Your task to perform on an android device: open app "Gmail" (install if not already installed) and enter user name: "undecidable@inbox.com" and password: "discouraging" Image 0: 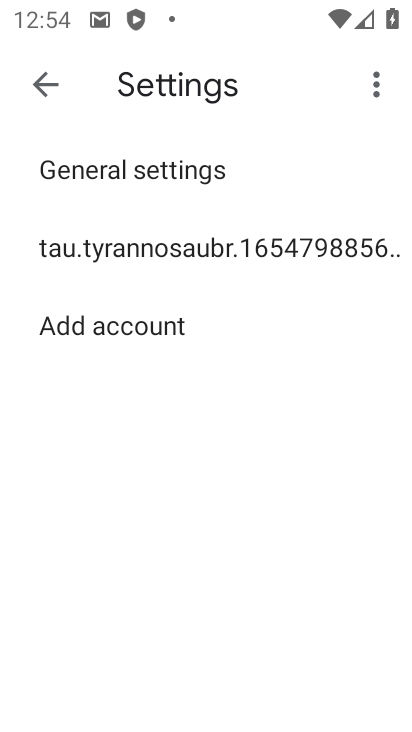
Step 0: press home button
Your task to perform on an android device: open app "Gmail" (install if not already installed) and enter user name: "undecidable@inbox.com" and password: "discouraging" Image 1: 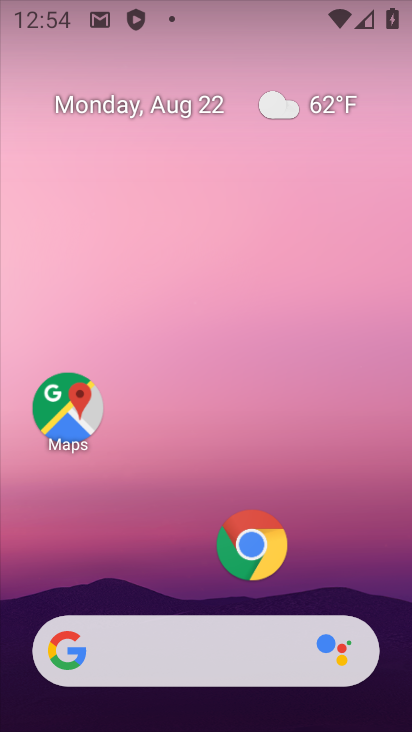
Step 1: drag from (111, 485) to (158, 10)
Your task to perform on an android device: open app "Gmail" (install if not already installed) and enter user name: "undecidable@inbox.com" and password: "discouraging" Image 2: 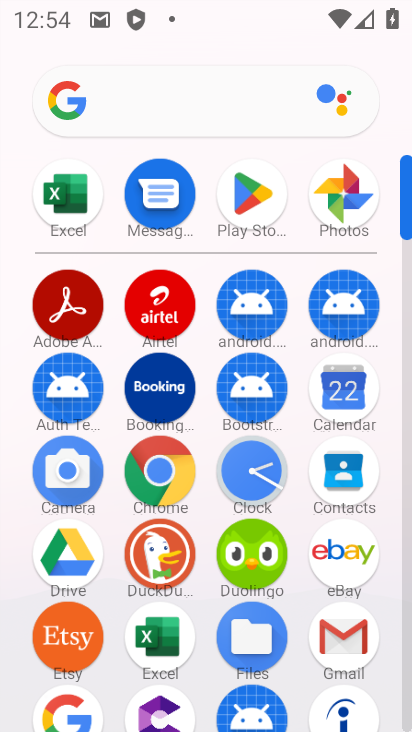
Step 2: click (338, 648)
Your task to perform on an android device: open app "Gmail" (install if not already installed) and enter user name: "undecidable@inbox.com" and password: "discouraging" Image 3: 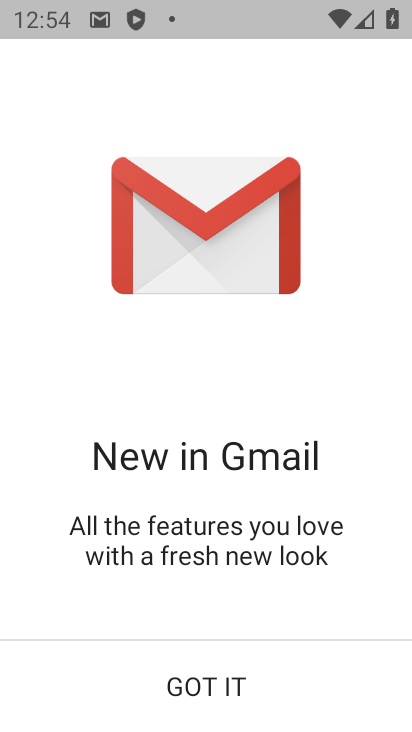
Step 3: click (207, 689)
Your task to perform on an android device: open app "Gmail" (install if not already installed) and enter user name: "undecidable@inbox.com" and password: "discouraging" Image 4: 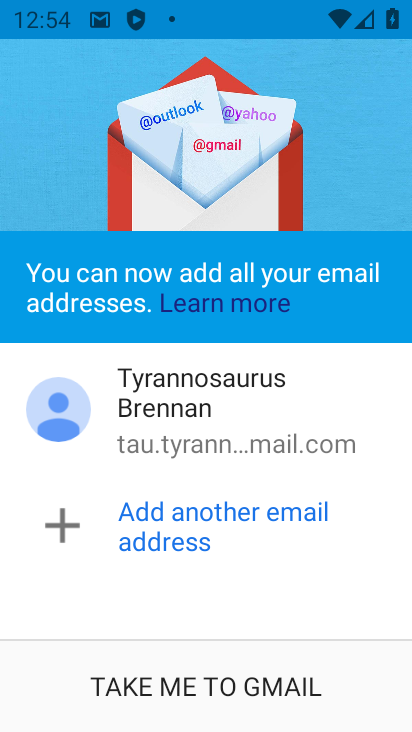
Step 4: click (181, 528)
Your task to perform on an android device: open app "Gmail" (install if not already installed) and enter user name: "undecidable@inbox.com" and password: "discouraging" Image 5: 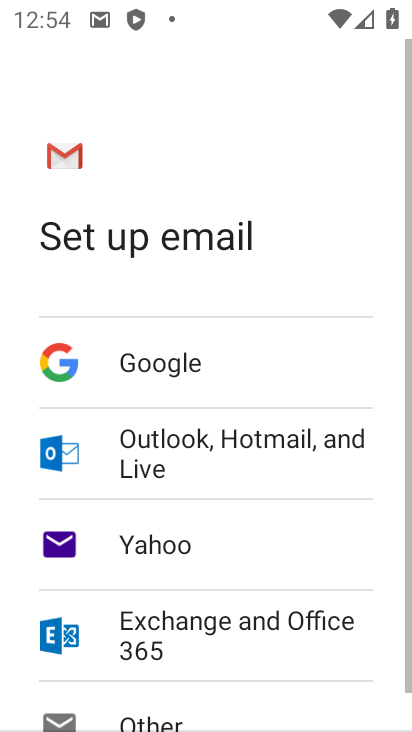
Step 5: click (160, 348)
Your task to perform on an android device: open app "Gmail" (install if not already installed) and enter user name: "undecidable@inbox.com" and password: "discouraging" Image 6: 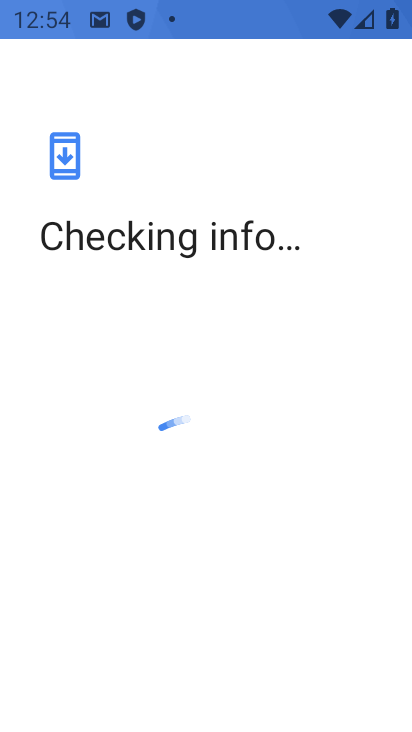
Step 6: press back button
Your task to perform on an android device: open app "Gmail" (install if not already installed) and enter user name: "undecidable@inbox.com" and password: "discouraging" Image 7: 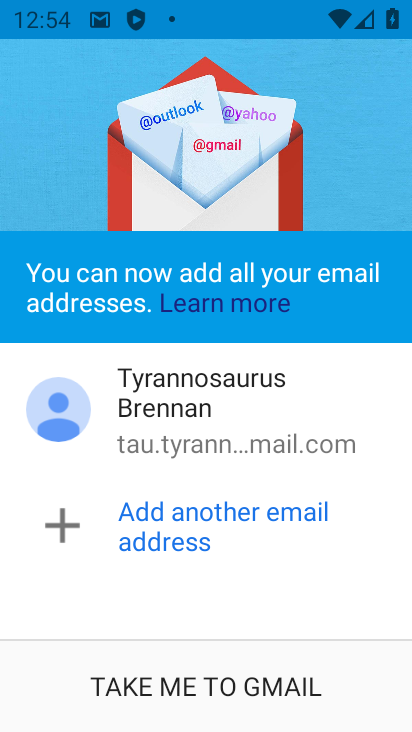
Step 7: click (164, 511)
Your task to perform on an android device: open app "Gmail" (install if not already installed) and enter user name: "undecidable@inbox.com" and password: "discouraging" Image 8: 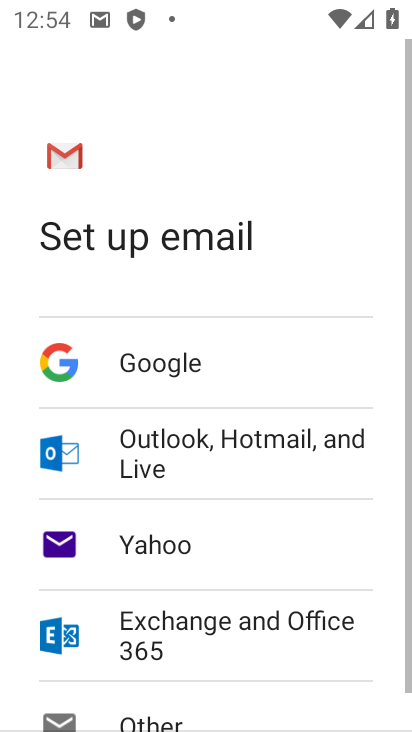
Step 8: drag from (189, 684) to (290, 76)
Your task to perform on an android device: open app "Gmail" (install if not already installed) and enter user name: "undecidable@inbox.com" and password: "discouraging" Image 9: 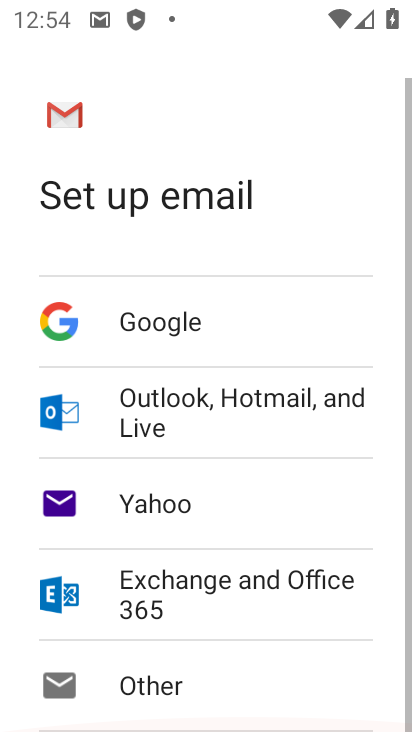
Step 9: click (129, 706)
Your task to perform on an android device: open app "Gmail" (install if not already installed) and enter user name: "undecidable@inbox.com" and password: "discouraging" Image 10: 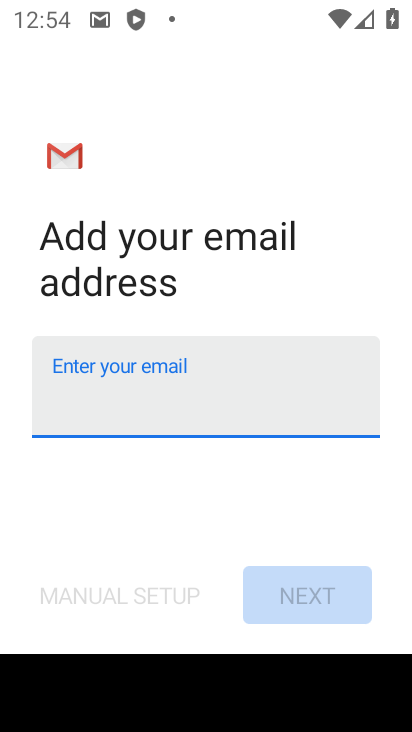
Step 10: click (179, 408)
Your task to perform on an android device: open app "Gmail" (install if not already installed) and enter user name: "undecidable@inbox.com" and password: "discouraging" Image 11: 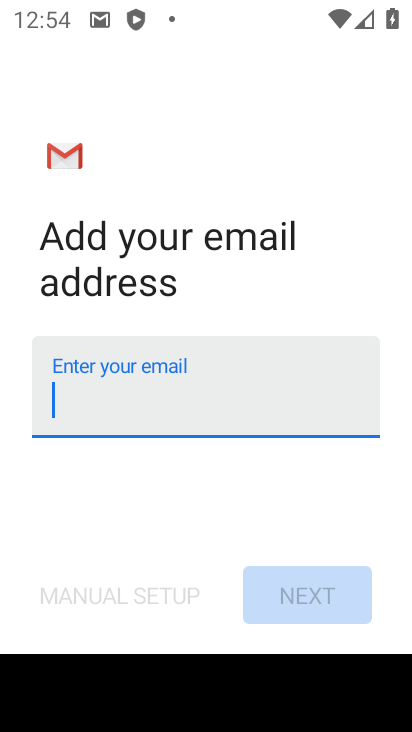
Step 11: click (91, 410)
Your task to perform on an android device: open app "Gmail" (install if not already installed) and enter user name: "undecidable@inbox.com" and password: "discouraging" Image 12: 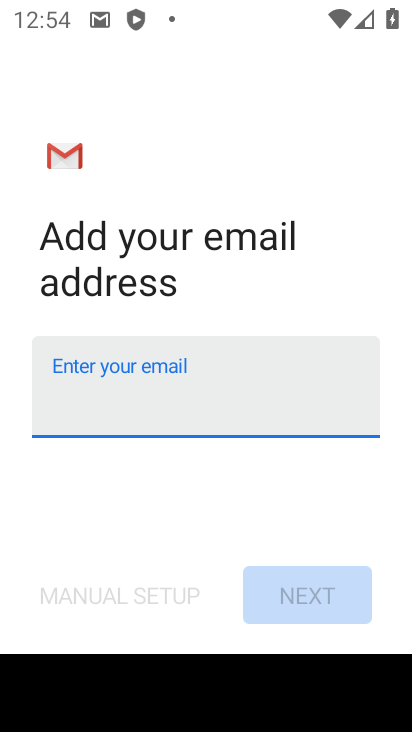
Step 12: type "undecidable@inbox.com"
Your task to perform on an android device: open app "Gmail" (install if not already installed) and enter user name: "undecidable@inbox.com" and password: "discouraging" Image 13: 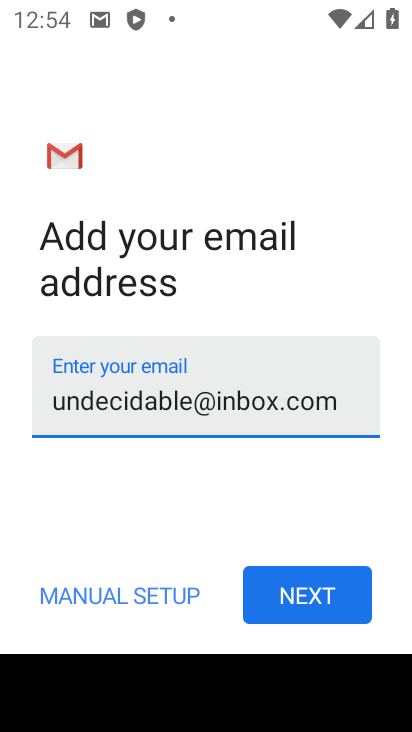
Step 13: click (308, 589)
Your task to perform on an android device: open app "Gmail" (install if not already installed) and enter user name: "undecidable@inbox.com" and password: "discouraging" Image 14: 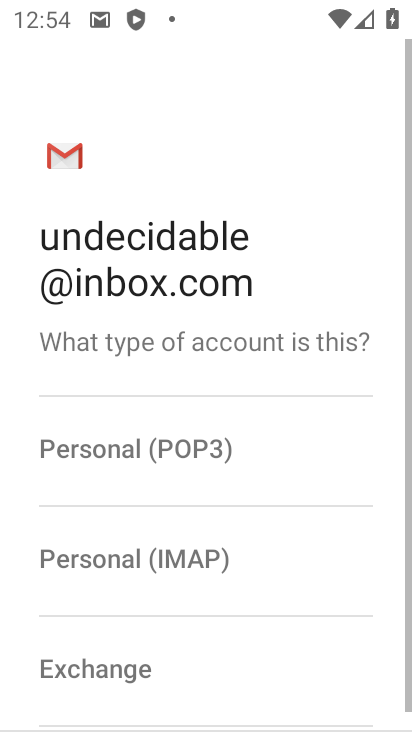
Step 14: task complete